Your task to perform on an android device: Clear the cart on newegg.com. Search for "usb-a to usb-b" on newegg.com, select the first entry, add it to the cart, then select checkout. Image 0: 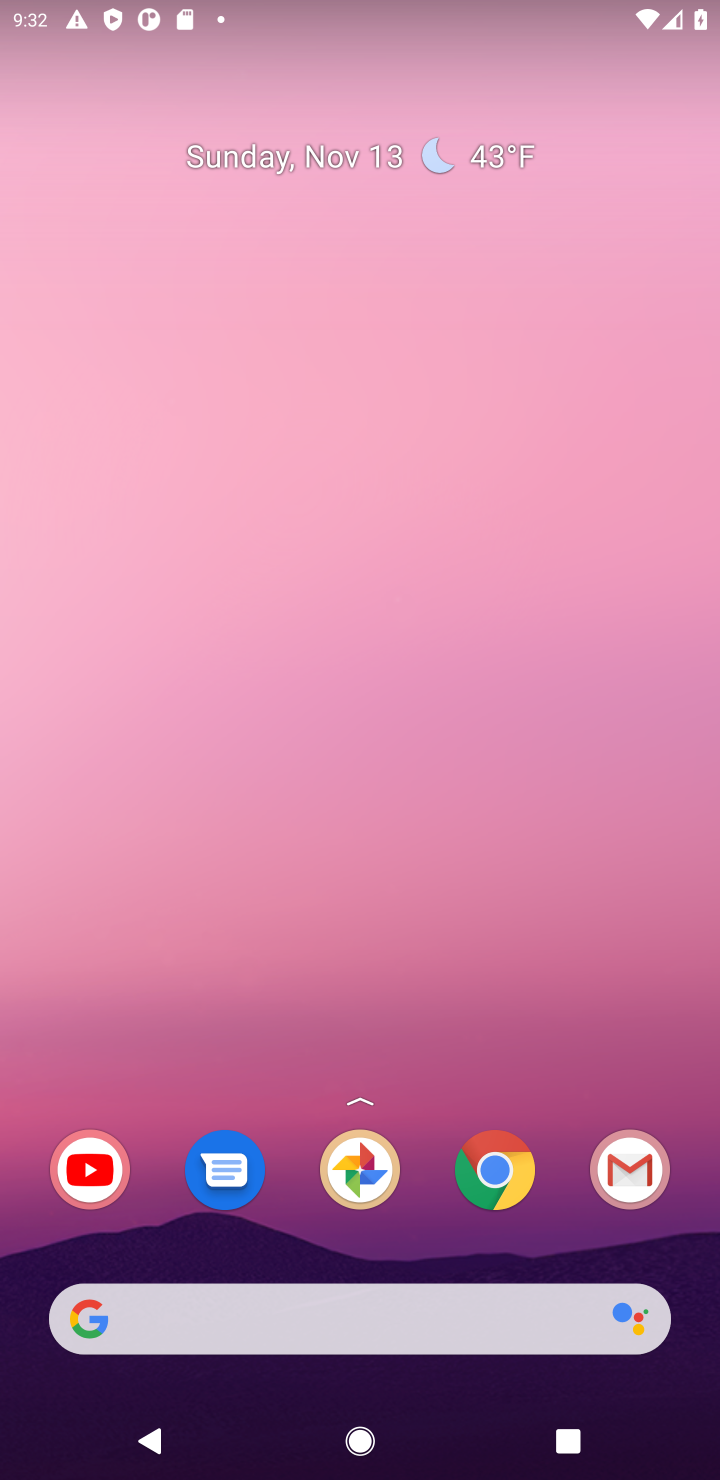
Step 0: drag from (25, 374) to (0, 125)
Your task to perform on an android device: Clear the cart on newegg.com. Search for "usb-a to usb-b" on newegg.com, select the first entry, add it to the cart, then select checkout. Image 1: 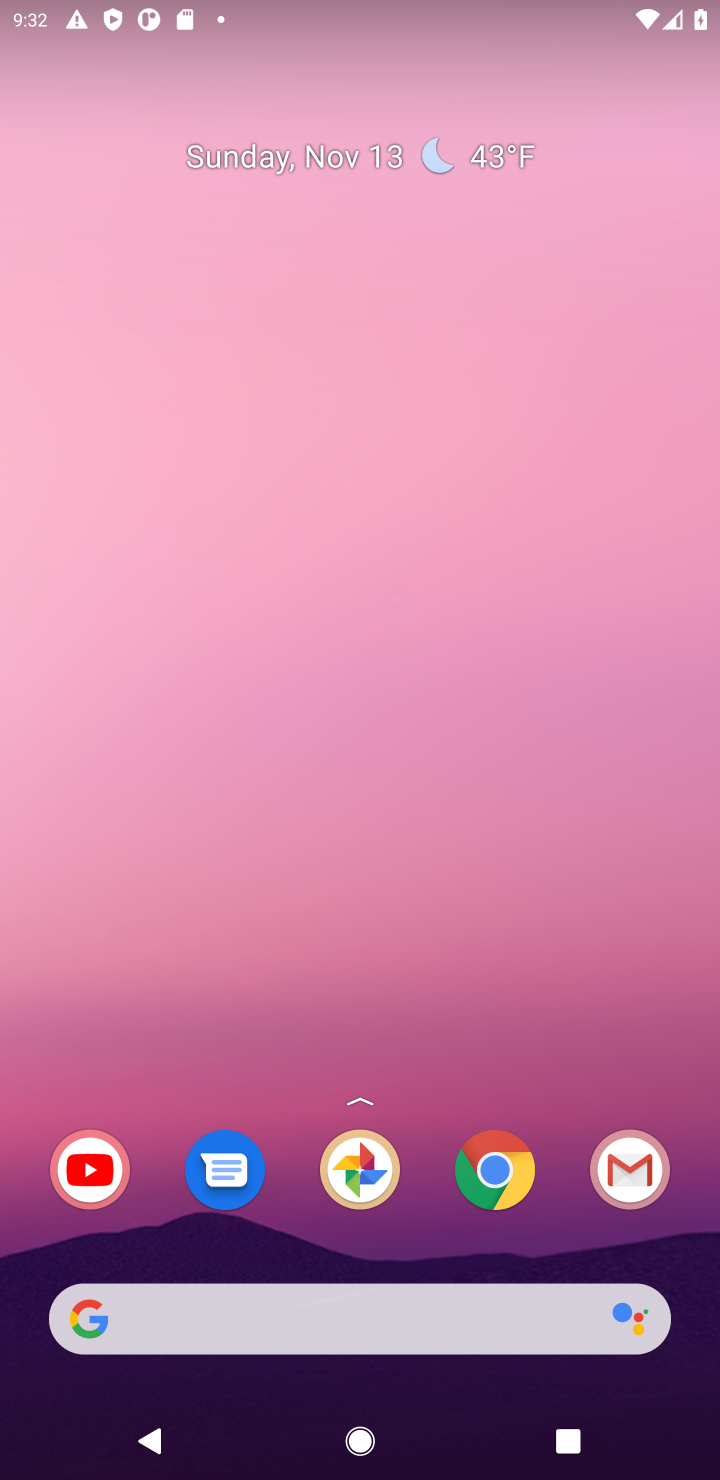
Step 1: drag from (369, 763) to (404, 35)
Your task to perform on an android device: Clear the cart on newegg.com. Search for "usb-a to usb-b" on newegg.com, select the first entry, add it to the cart, then select checkout. Image 2: 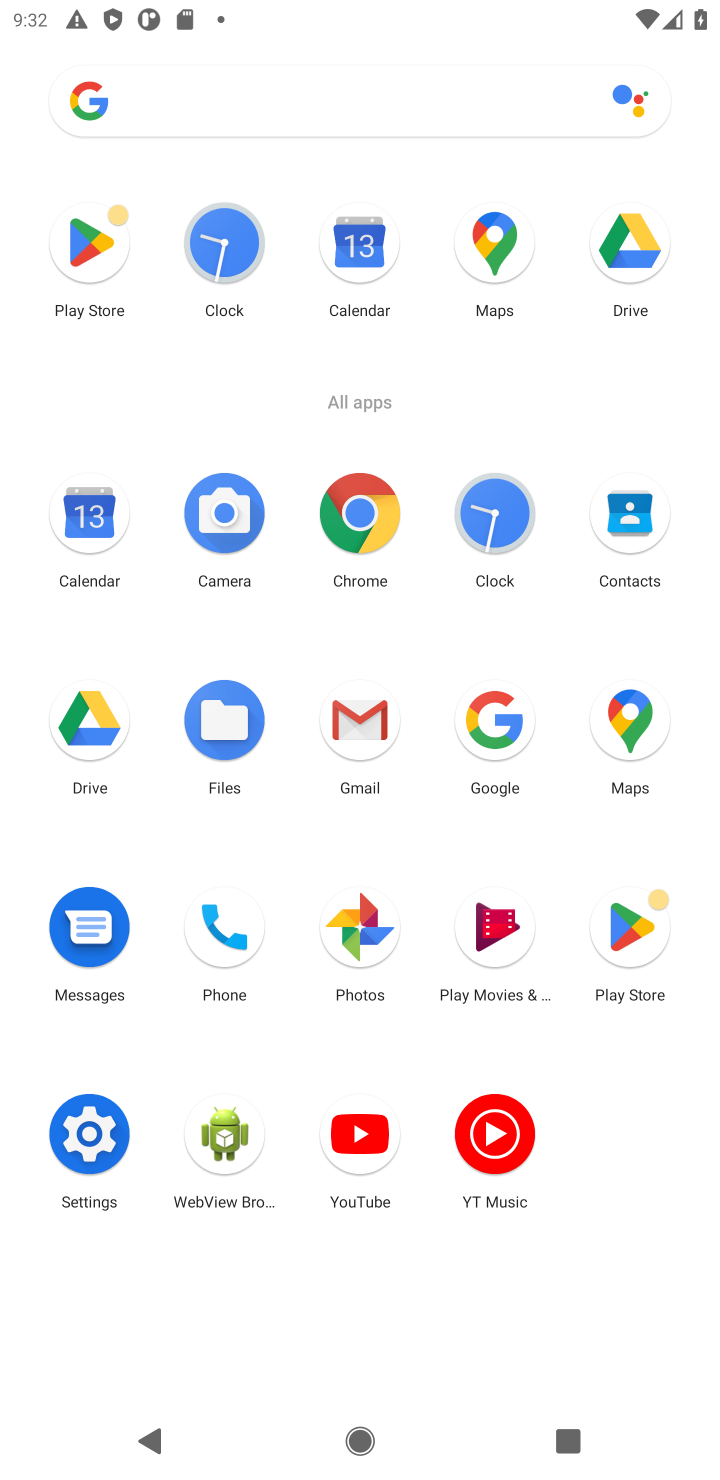
Step 2: click (341, 509)
Your task to perform on an android device: Clear the cart on newegg.com. Search for "usb-a to usb-b" on newegg.com, select the first entry, add it to the cart, then select checkout. Image 3: 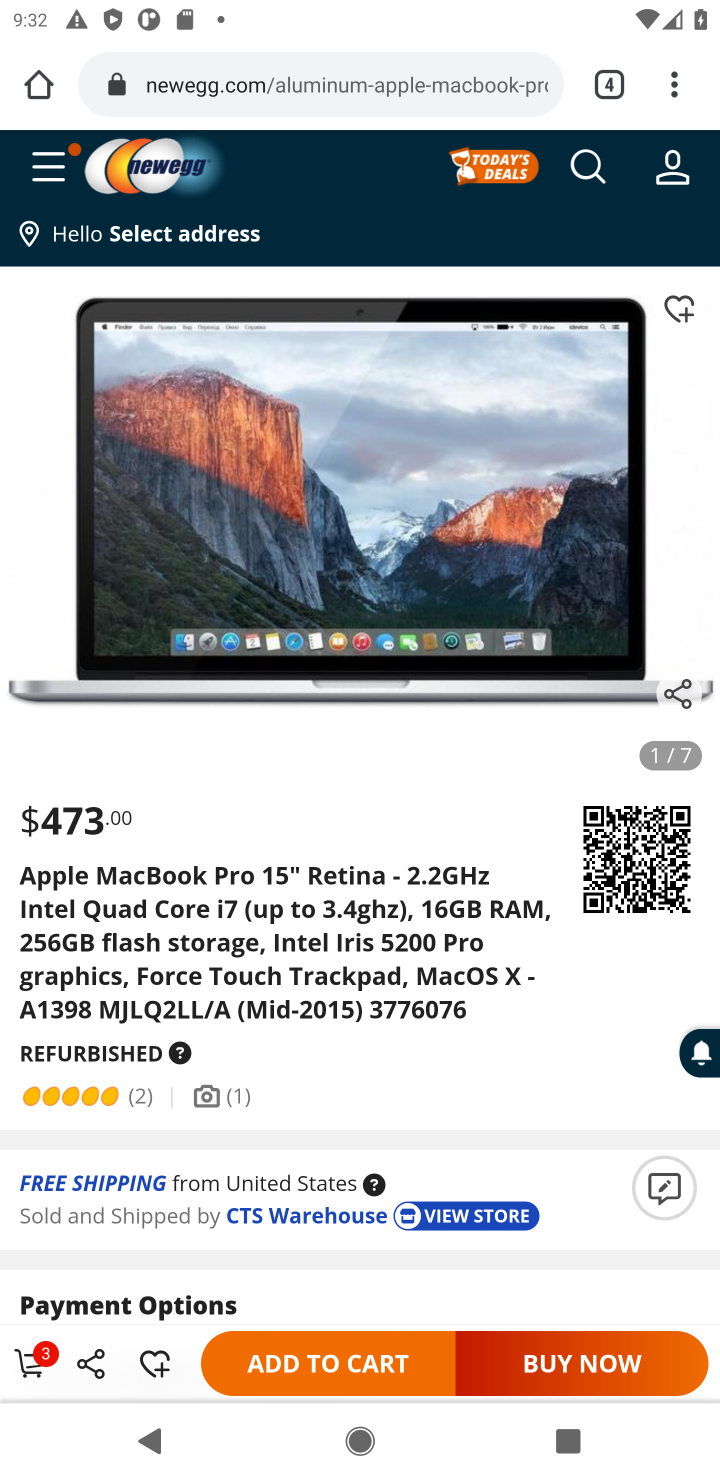
Step 3: click (570, 158)
Your task to perform on an android device: Clear the cart on newegg.com. Search for "usb-a to usb-b" on newegg.com, select the first entry, add it to the cart, then select checkout. Image 4: 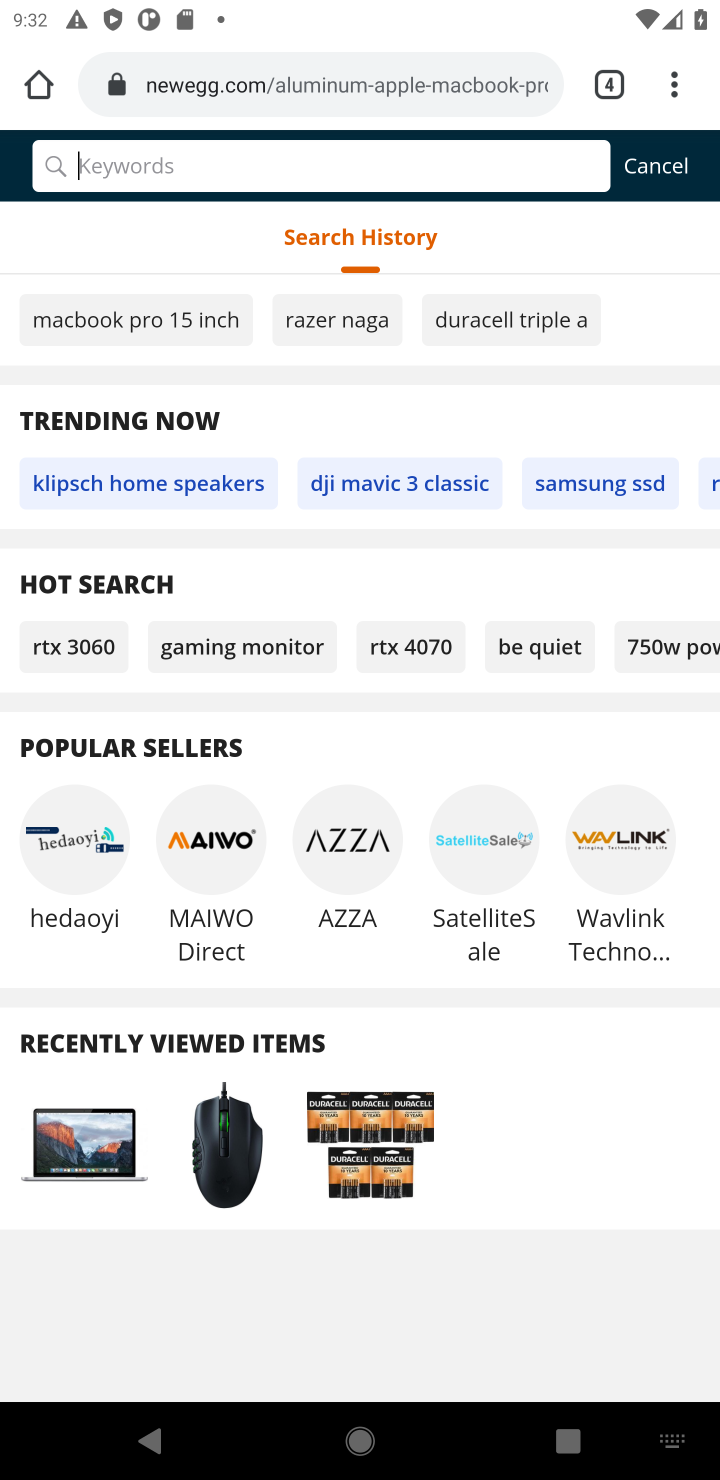
Step 4: type "usb-a to usb-b""
Your task to perform on an android device: Clear the cart on newegg.com. Search for "usb-a to usb-b" on newegg.com, select the first entry, add it to the cart, then select checkout. Image 5: 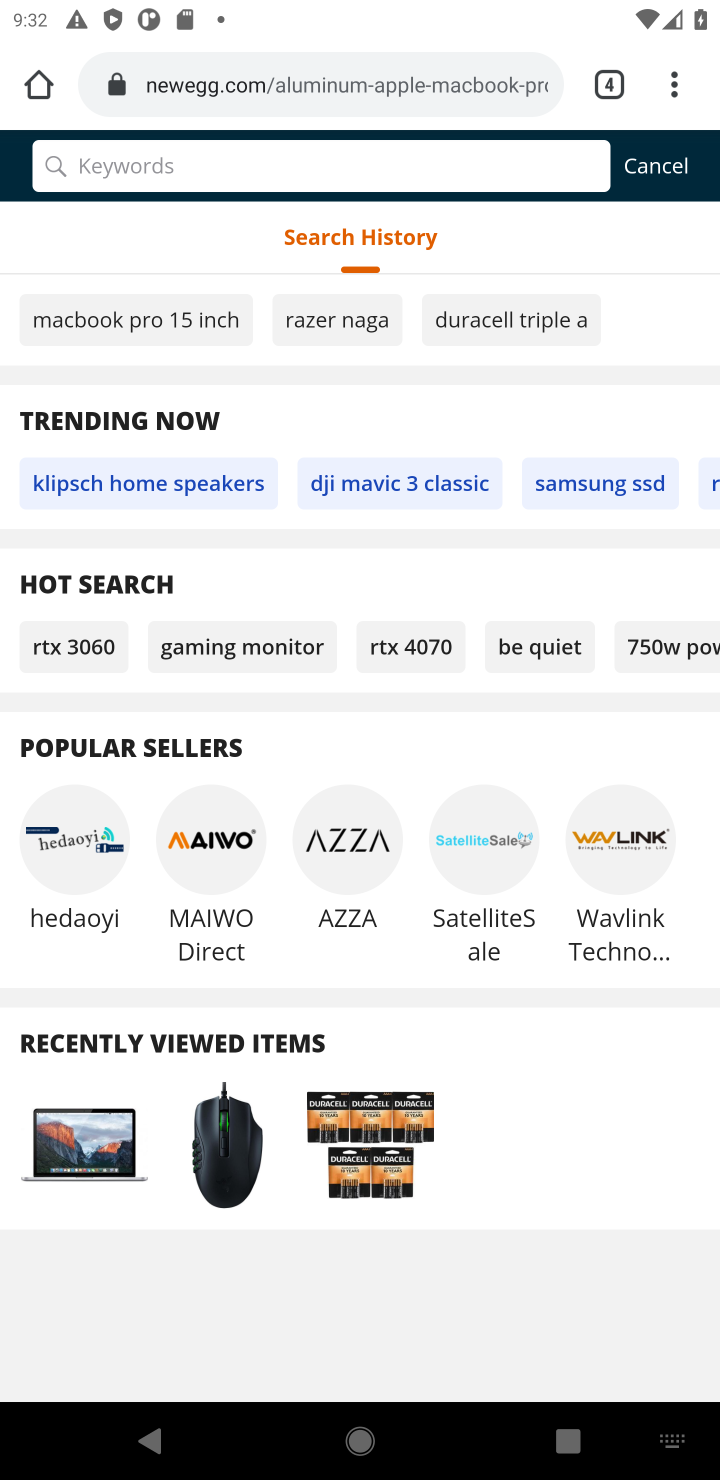
Step 5: press enter
Your task to perform on an android device: Clear the cart on newegg.com. Search for "usb-a to usb-b" on newegg.com, select the first entry, add it to the cart, then select checkout. Image 6: 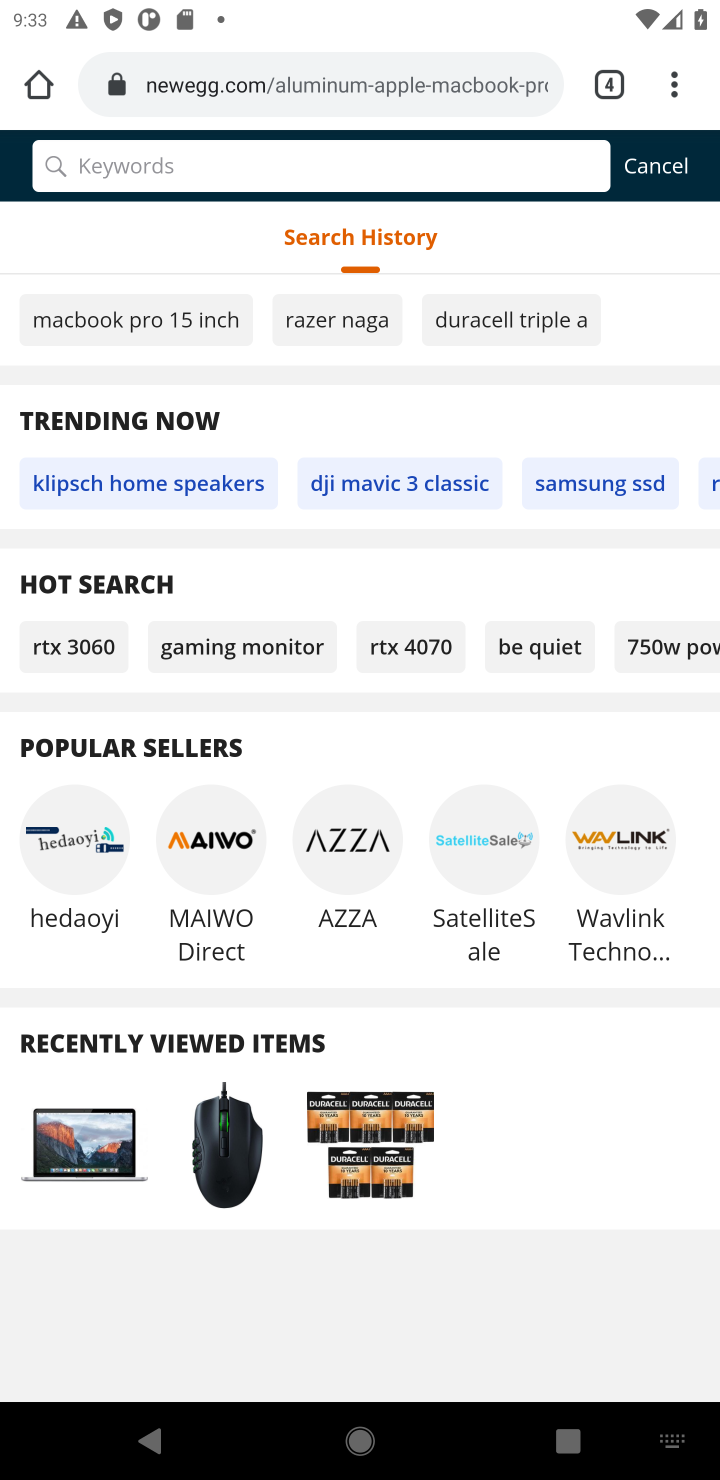
Step 6: type "usb-a to usb-b""
Your task to perform on an android device: Clear the cart on newegg.com. Search for "usb-a to usb-b" on newegg.com, select the first entry, add it to the cart, then select checkout. Image 7: 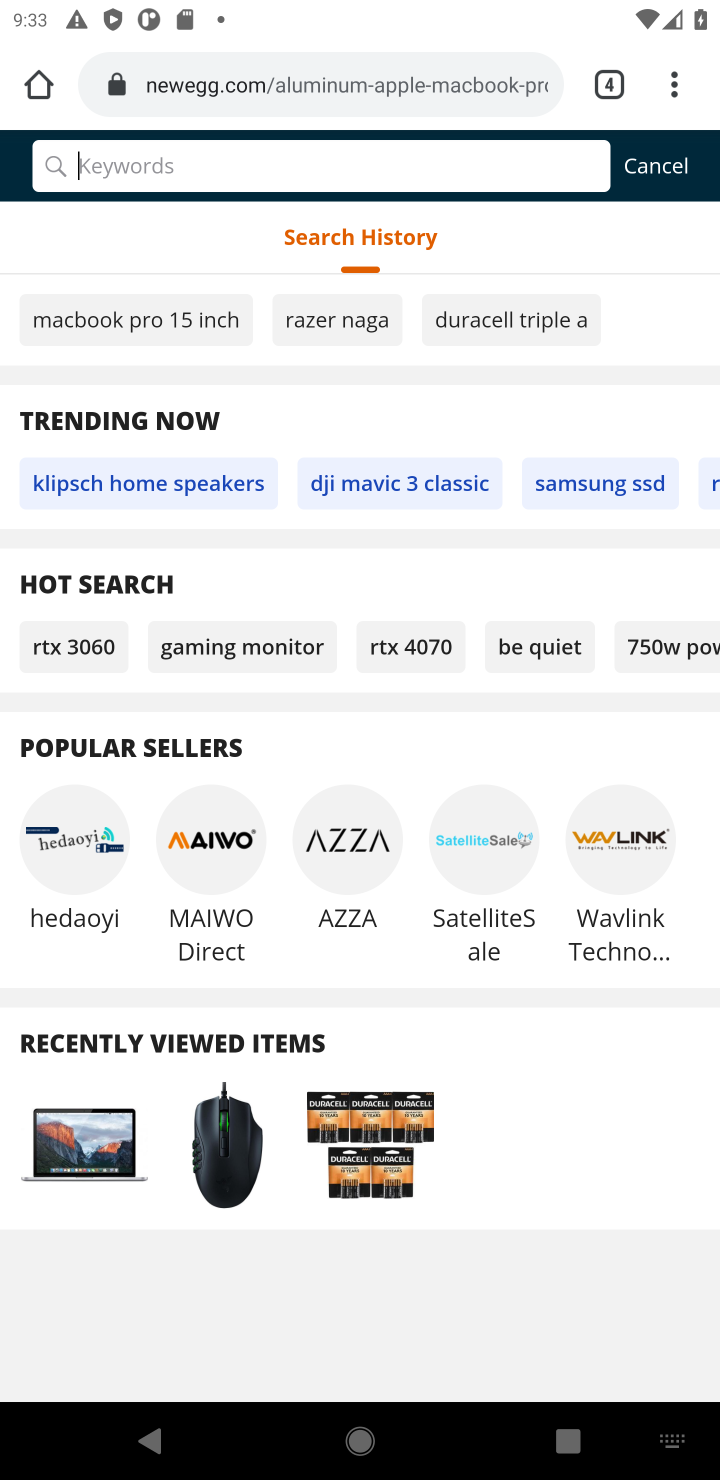
Step 7: press enter
Your task to perform on an android device: Clear the cart on newegg.com. Search for "usb-a to usb-b" on newegg.com, select the first entry, add it to the cart, then select checkout. Image 8: 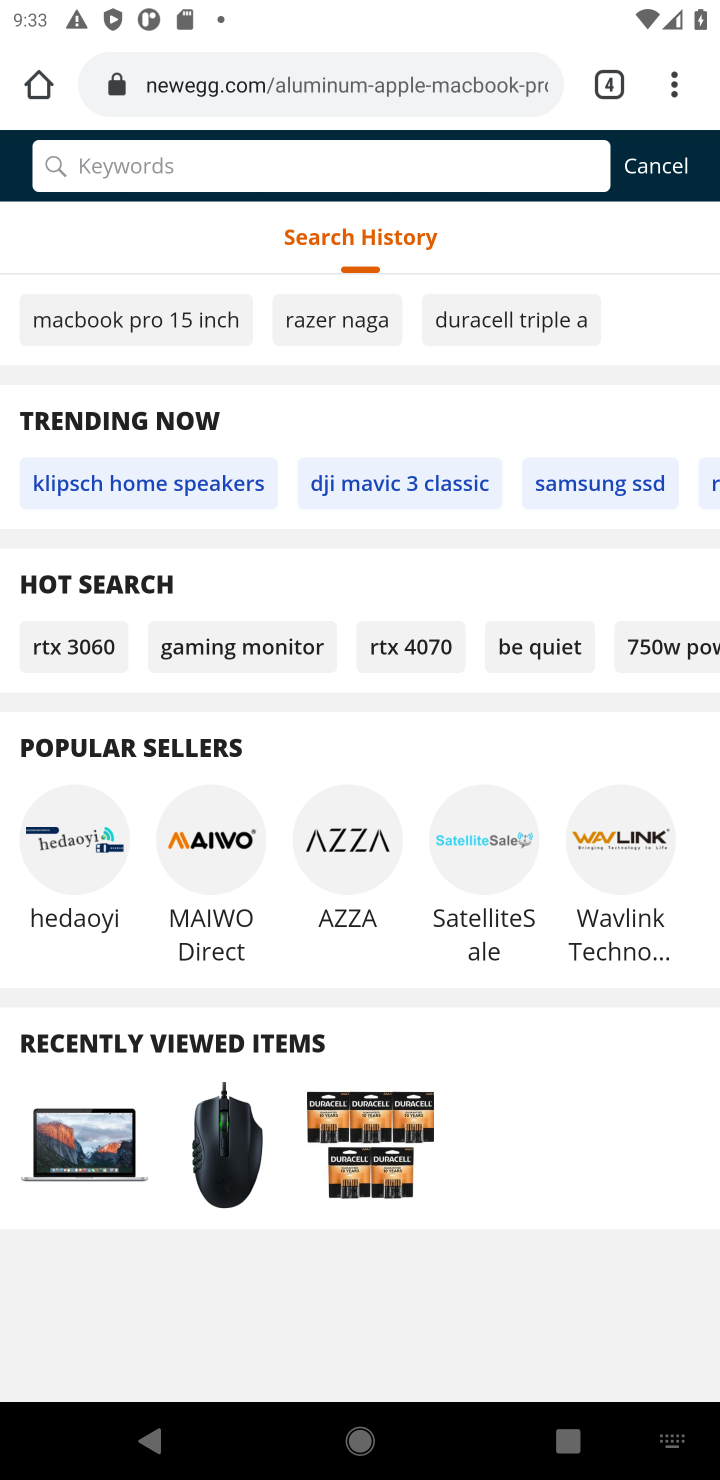
Step 8: drag from (519, 454) to (472, 870)
Your task to perform on an android device: Clear the cart on newegg.com. Search for "usb-a to usb-b" on newegg.com, select the first entry, add it to the cart, then select checkout. Image 9: 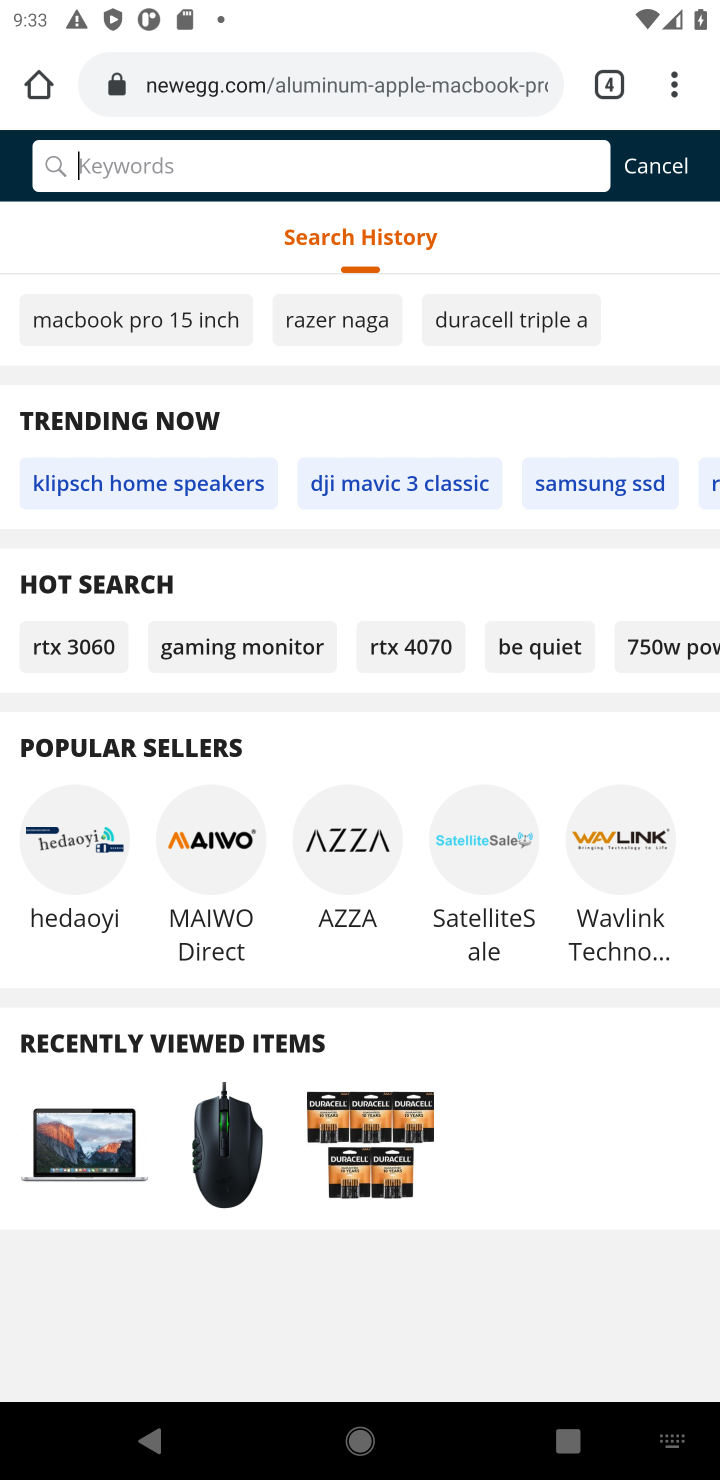
Step 9: click (163, 162)
Your task to perform on an android device: Clear the cart on newegg.com. Search for "usb-a to usb-b" on newegg.com, select the first entry, add it to the cart, then select checkout. Image 10: 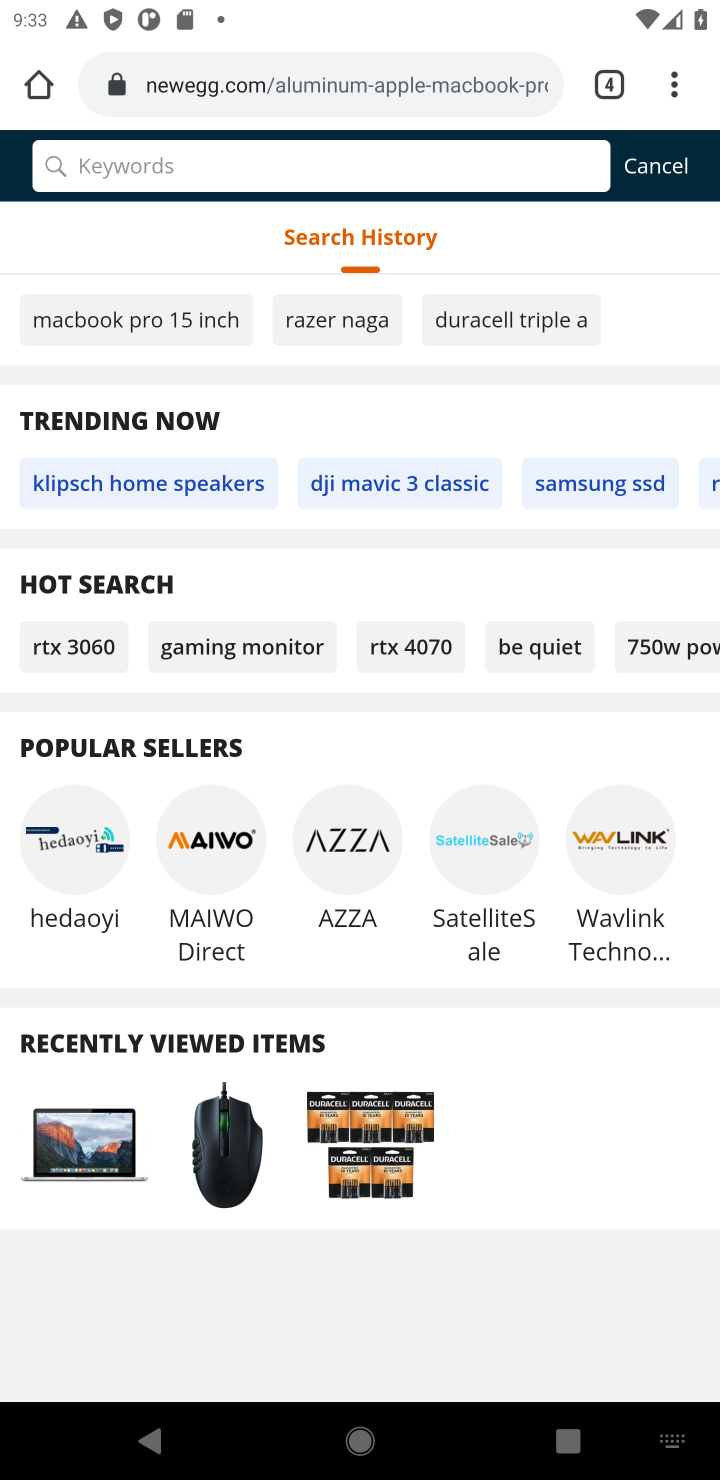
Step 10: type "usb-a to usb-b""
Your task to perform on an android device: Clear the cart on newegg.com. Search for "usb-a to usb-b" on newegg.com, select the first entry, add it to the cart, then select checkout. Image 11: 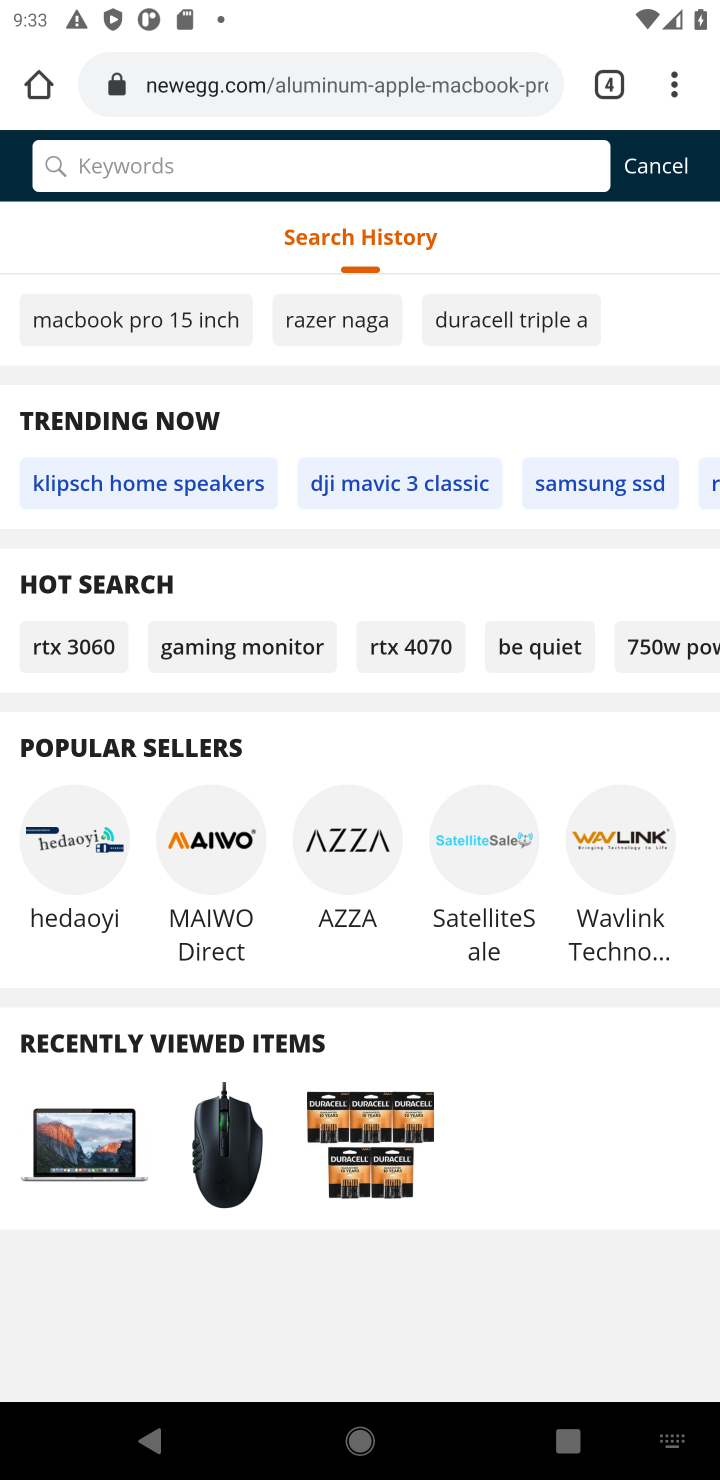
Step 11: press enter
Your task to perform on an android device: Clear the cart on newegg.com. Search for "usb-a to usb-b" on newegg.com, select the first entry, add it to the cart, then select checkout. Image 12: 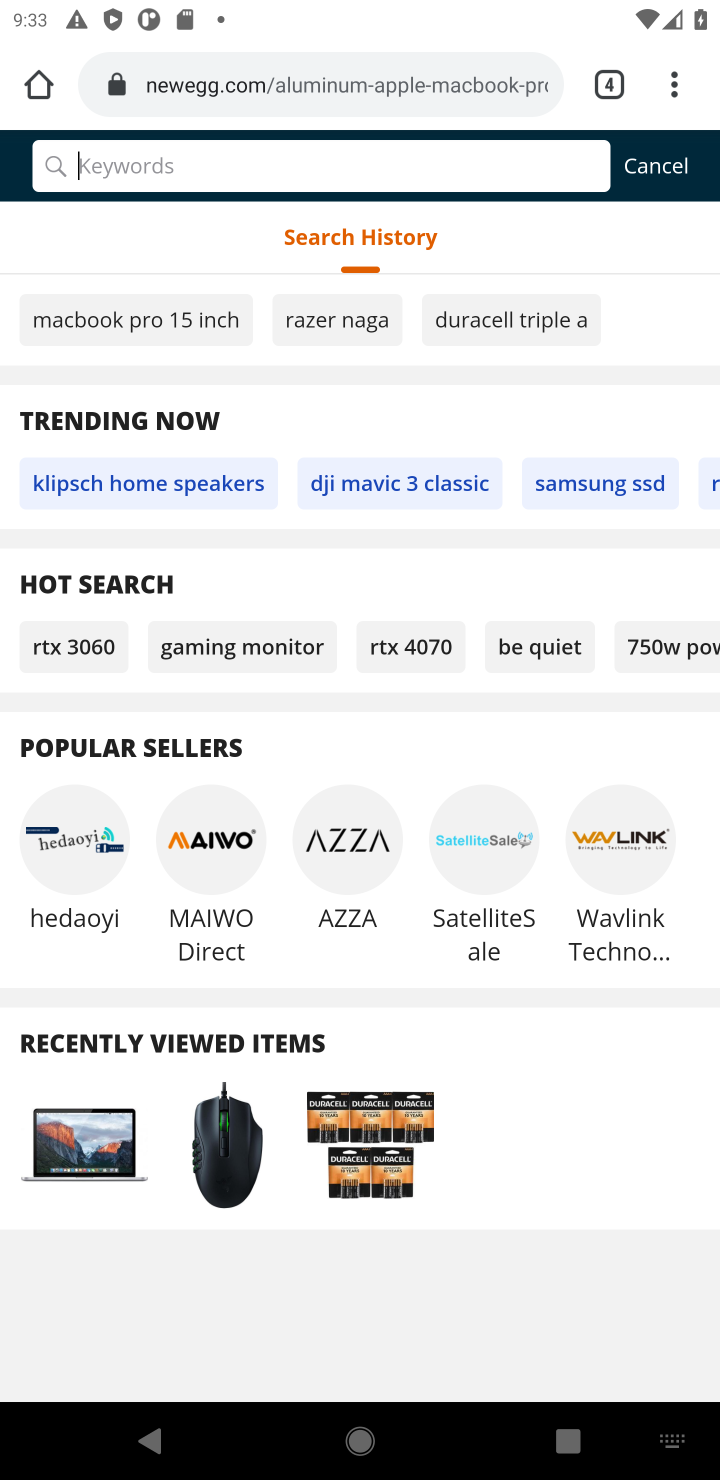
Step 12: click (162, 167)
Your task to perform on an android device: Clear the cart on newegg.com. Search for "usb-a to usb-b" on newegg.com, select the first entry, add it to the cart, then select checkout. Image 13: 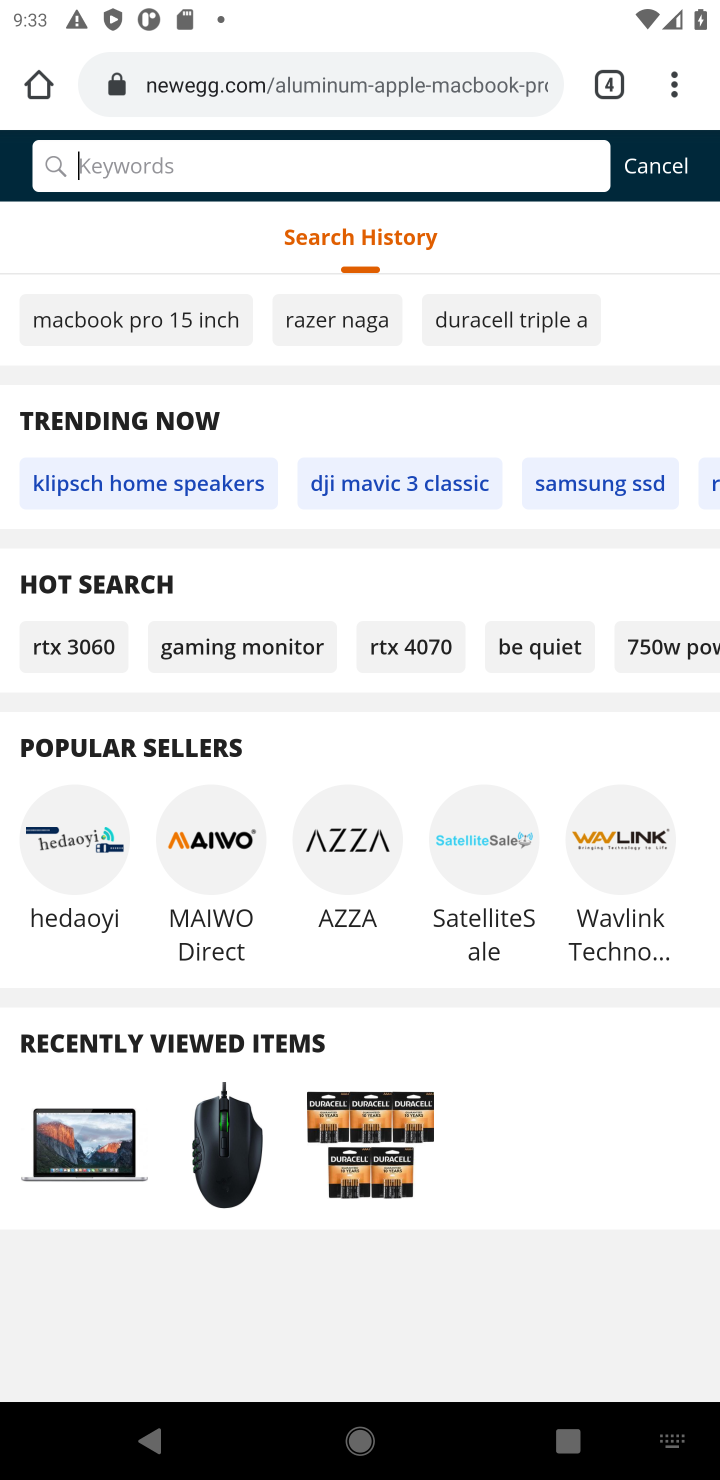
Step 13: type "usb-a to usb-b""
Your task to perform on an android device: Clear the cart on newegg.com. Search for "usb-a to usb-b" on newegg.com, select the first entry, add it to the cart, then select checkout. Image 14: 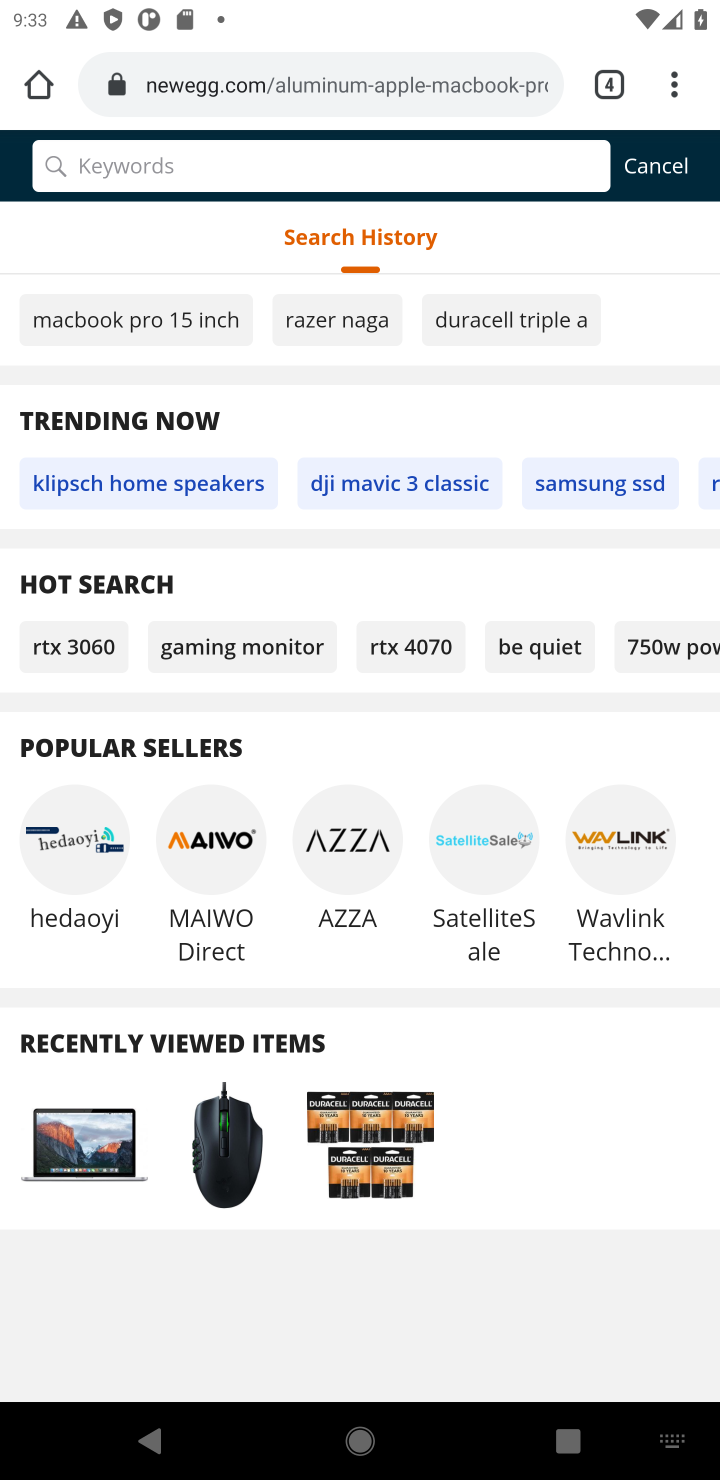
Step 14: press enter
Your task to perform on an android device: Clear the cart on newegg.com. Search for "usb-a to usb-b" on newegg.com, select the first entry, add it to the cart, then select checkout. Image 15: 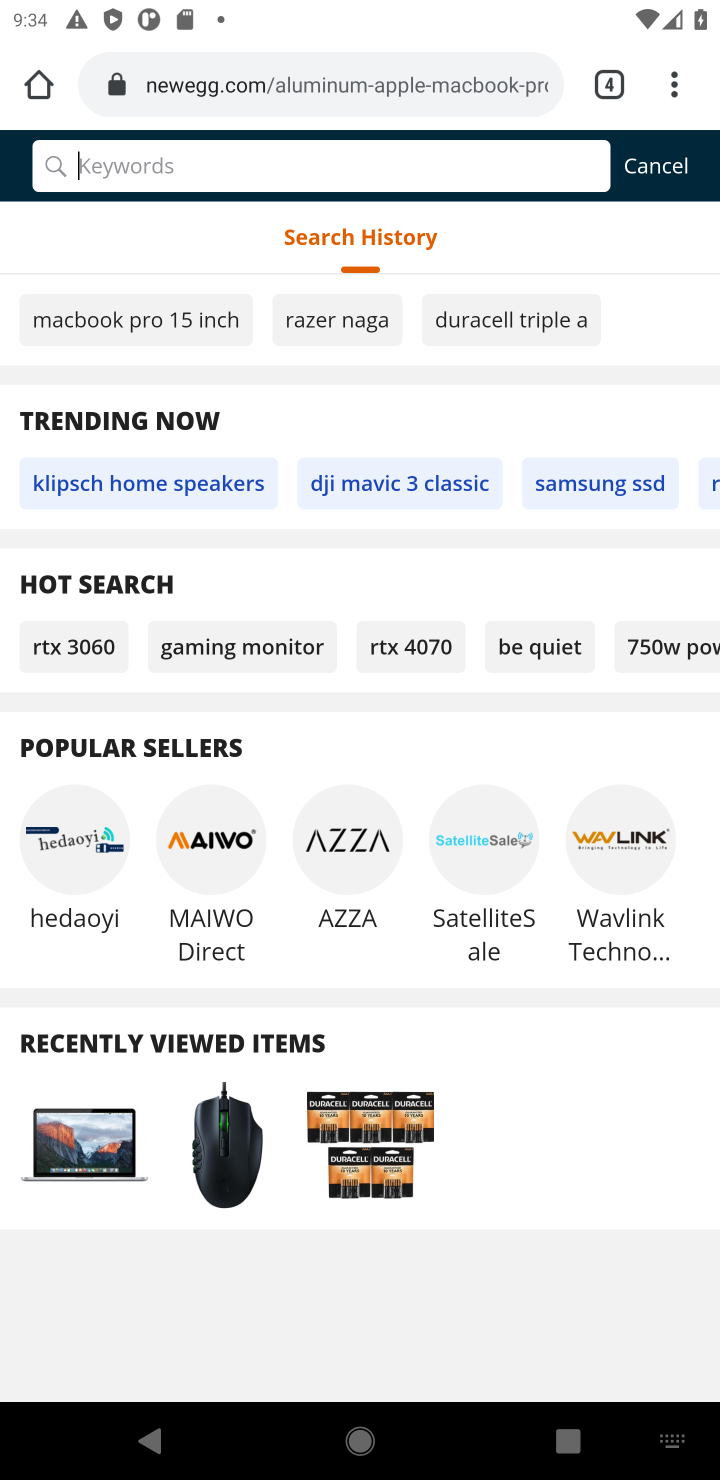
Step 15: task complete